Your task to perform on an android device: open a bookmark in the chrome app Image 0: 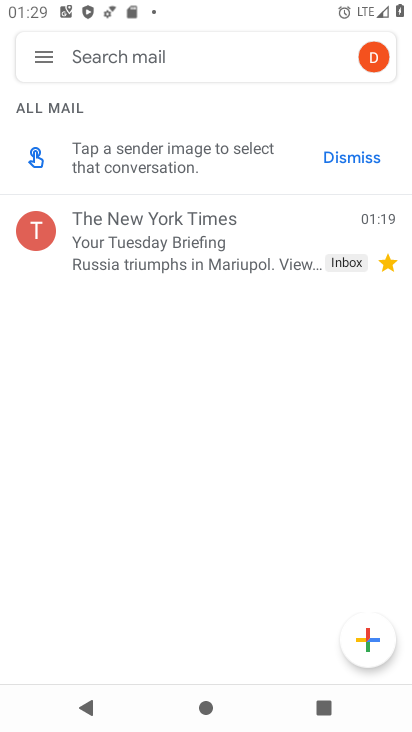
Step 0: press home button
Your task to perform on an android device: open a bookmark in the chrome app Image 1: 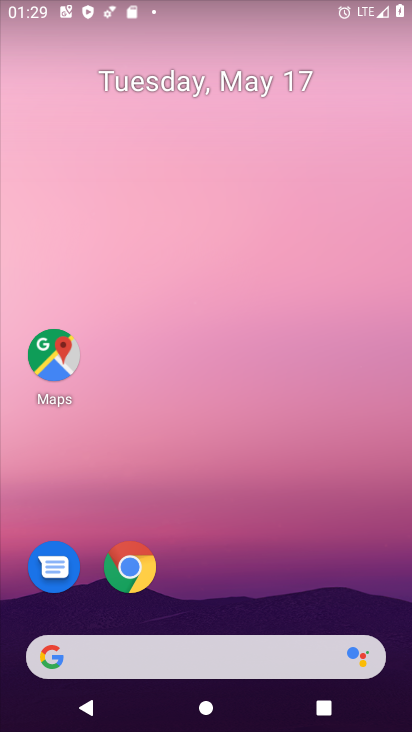
Step 1: click (125, 568)
Your task to perform on an android device: open a bookmark in the chrome app Image 2: 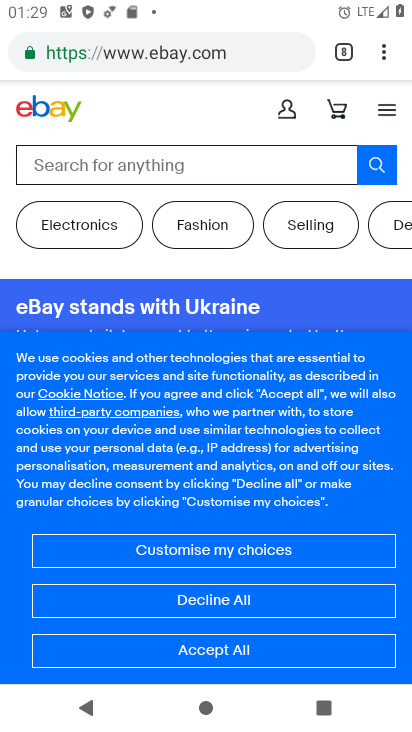
Step 2: click (381, 43)
Your task to perform on an android device: open a bookmark in the chrome app Image 3: 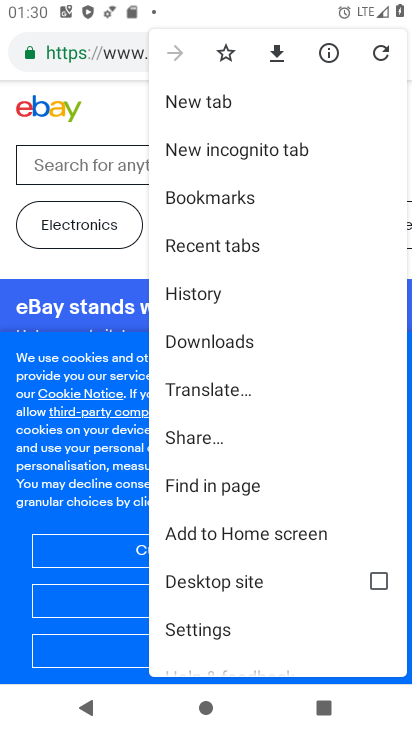
Step 3: click (241, 196)
Your task to perform on an android device: open a bookmark in the chrome app Image 4: 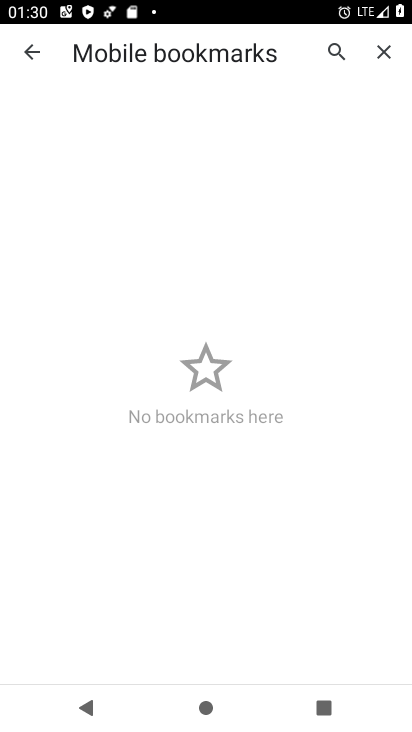
Step 4: task complete